Your task to perform on an android device: change notification settings in the gmail app Image 0: 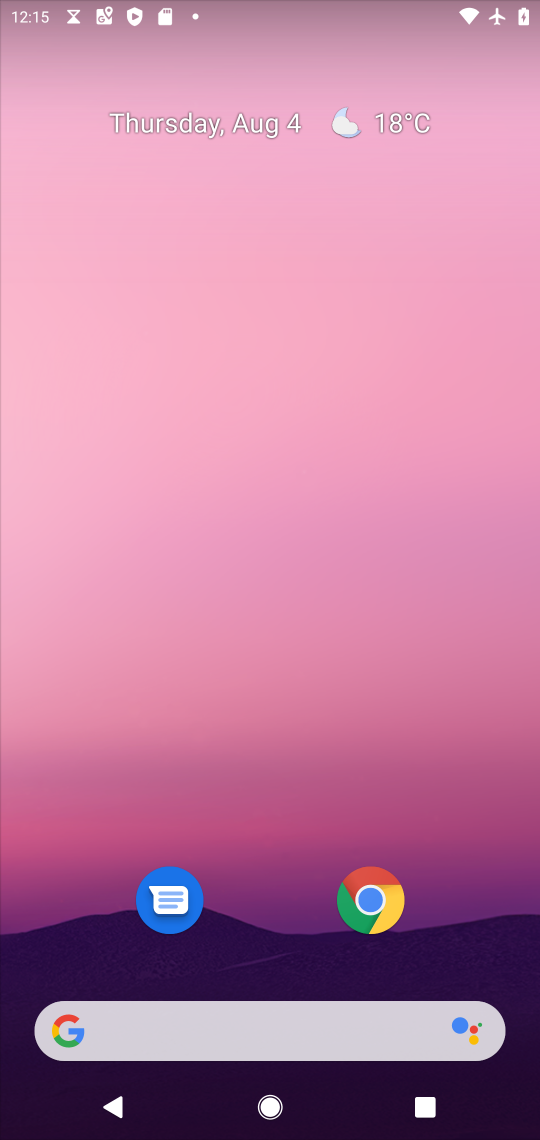
Step 0: press home button
Your task to perform on an android device: change notification settings in the gmail app Image 1: 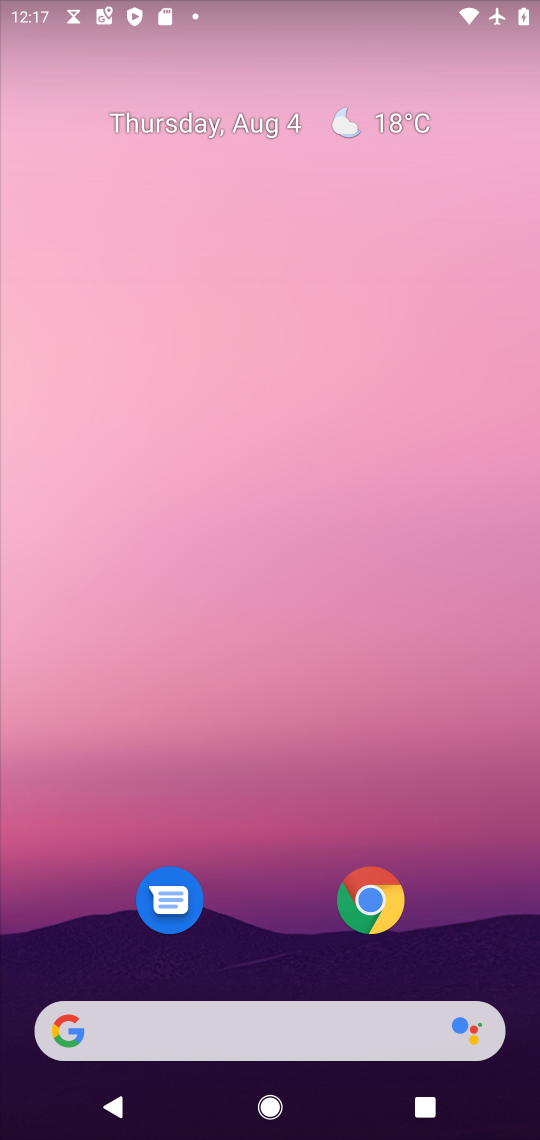
Step 1: drag from (261, 755) to (320, 98)
Your task to perform on an android device: change notification settings in the gmail app Image 2: 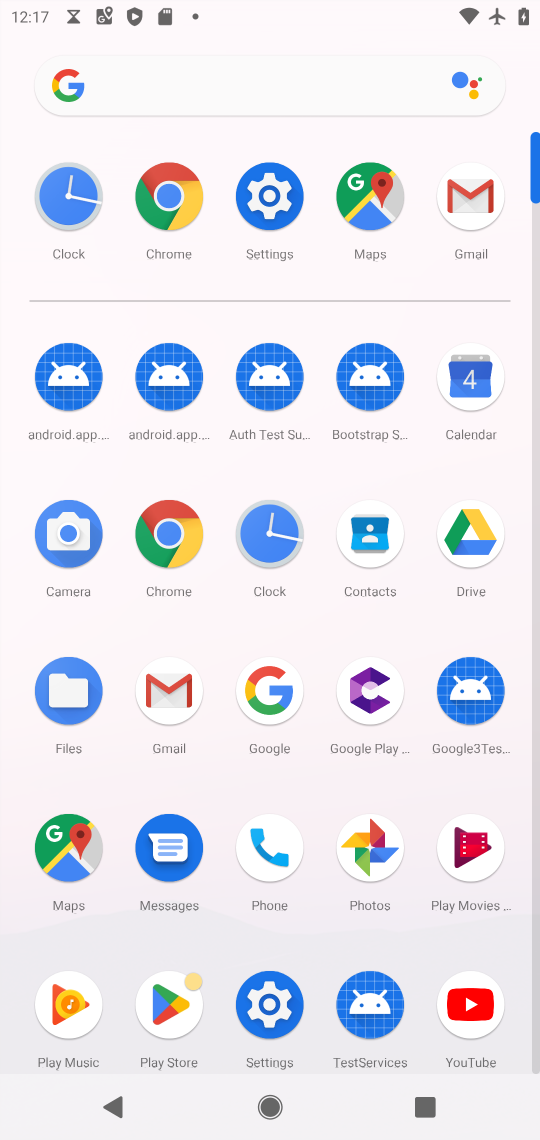
Step 2: click (480, 205)
Your task to perform on an android device: change notification settings in the gmail app Image 3: 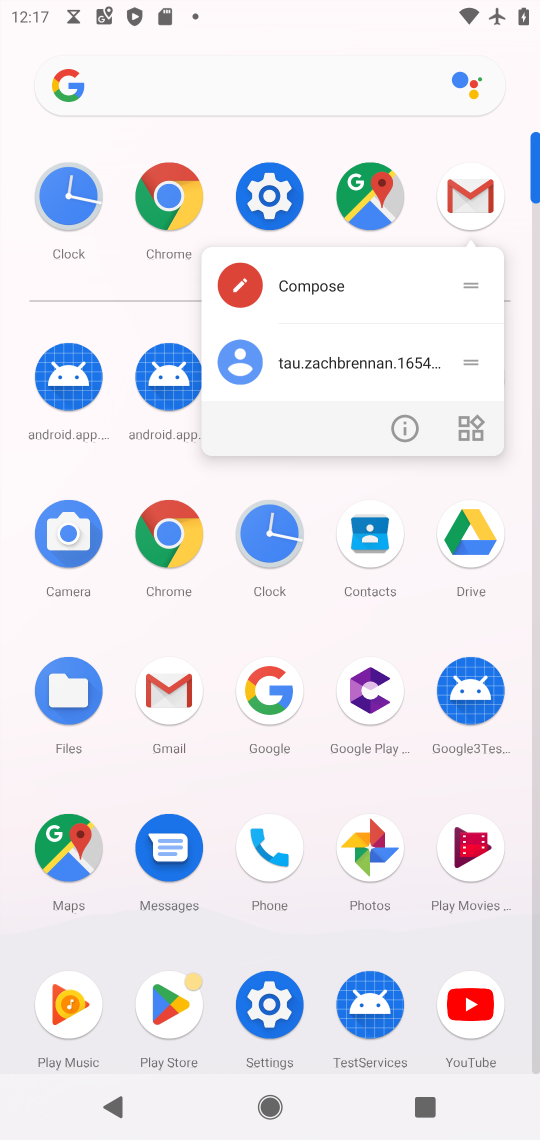
Step 3: click (480, 205)
Your task to perform on an android device: change notification settings in the gmail app Image 4: 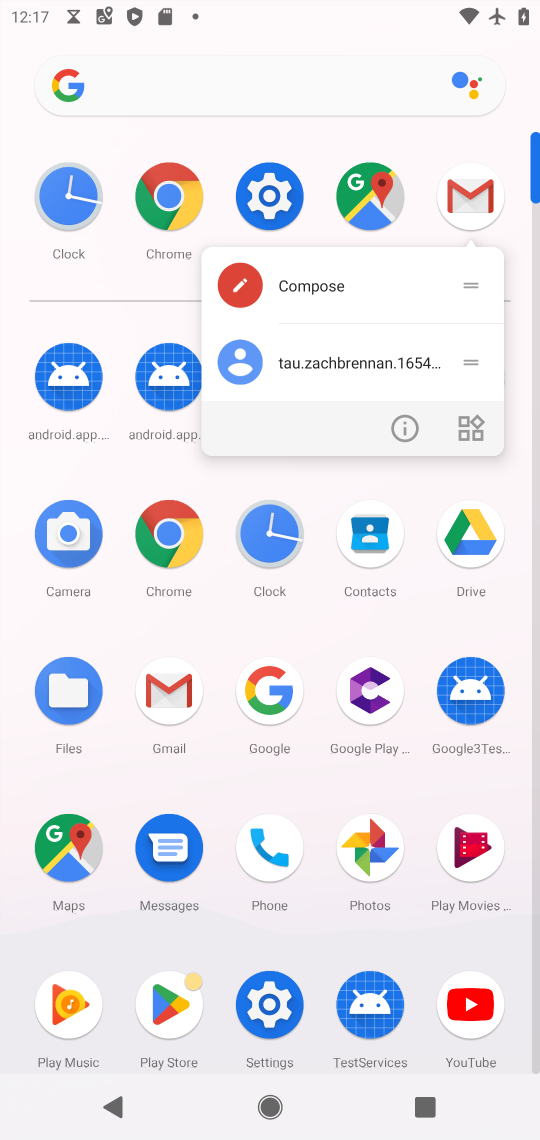
Step 4: click (480, 205)
Your task to perform on an android device: change notification settings in the gmail app Image 5: 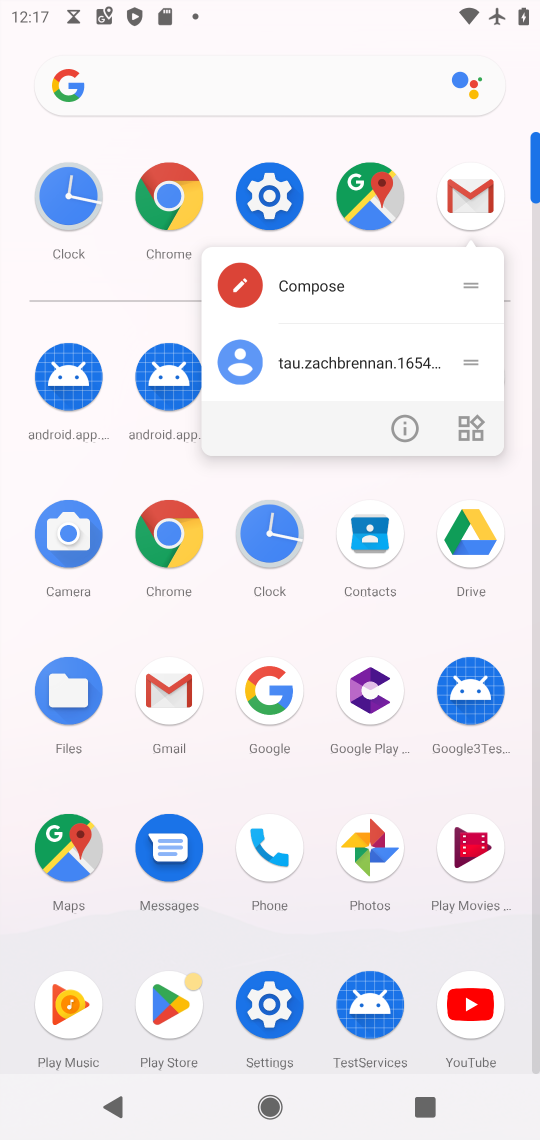
Step 5: click (471, 197)
Your task to perform on an android device: change notification settings in the gmail app Image 6: 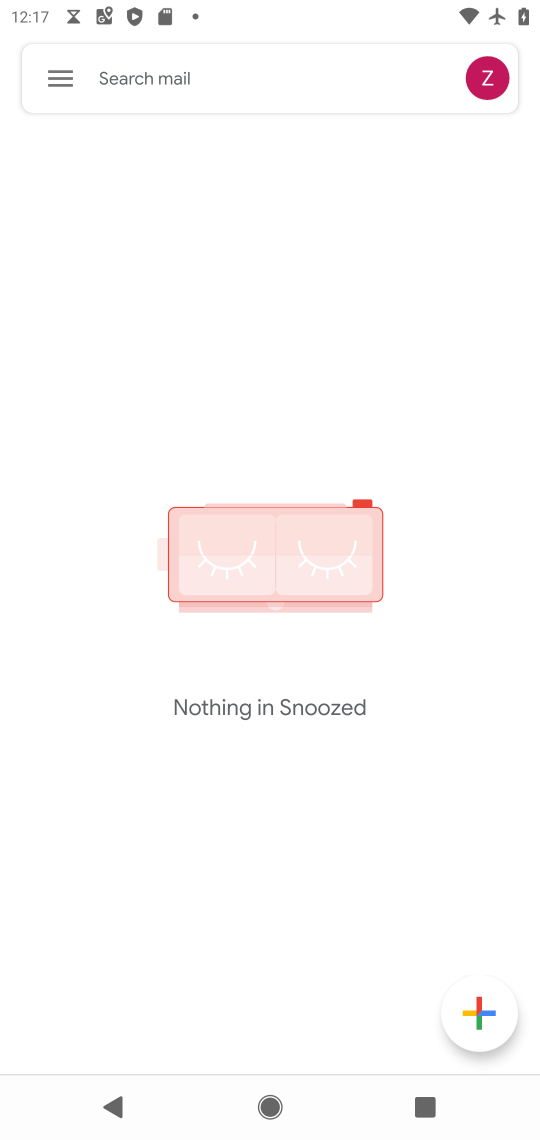
Step 6: click (67, 74)
Your task to perform on an android device: change notification settings in the gmail app Image 7: 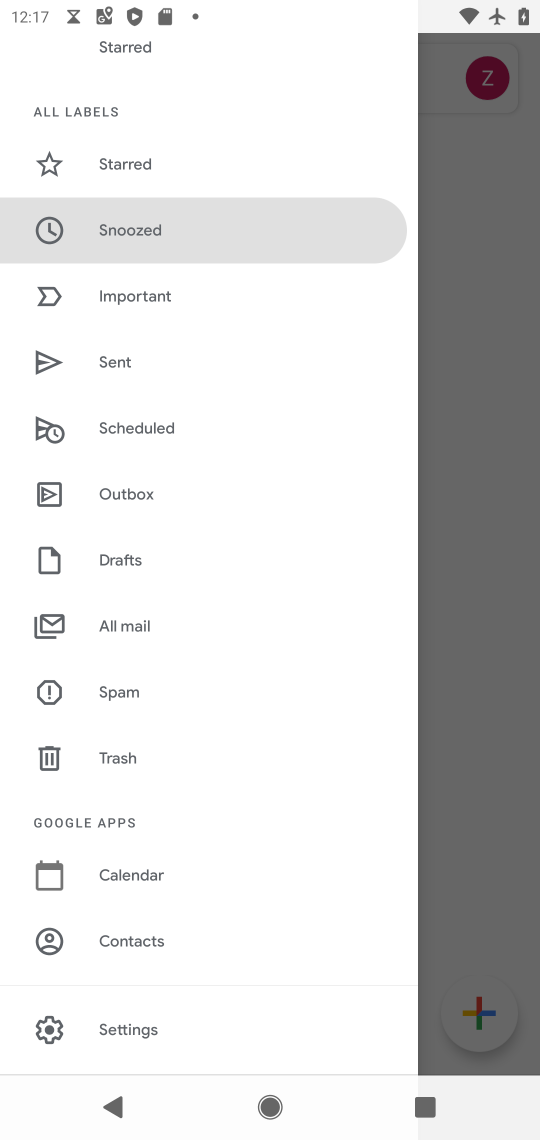
Step 7: click (123, 1032)
Your task to perform on an android device: change notification settings in the gmail app Image 8: 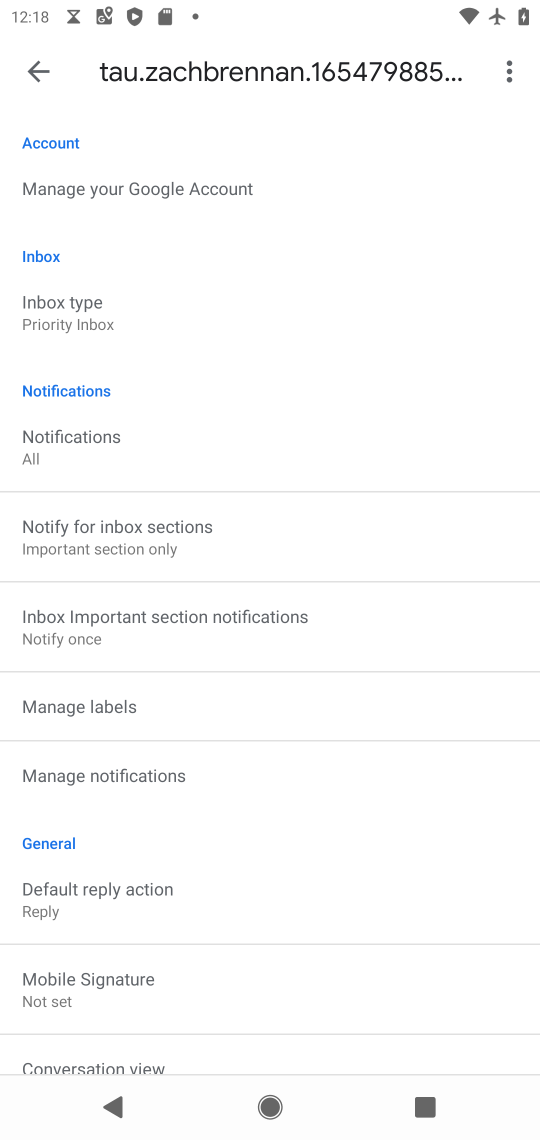
Step 8: click (97, 779)
Your task to perform on an android device: change notification settings in the gmail app Image 9: 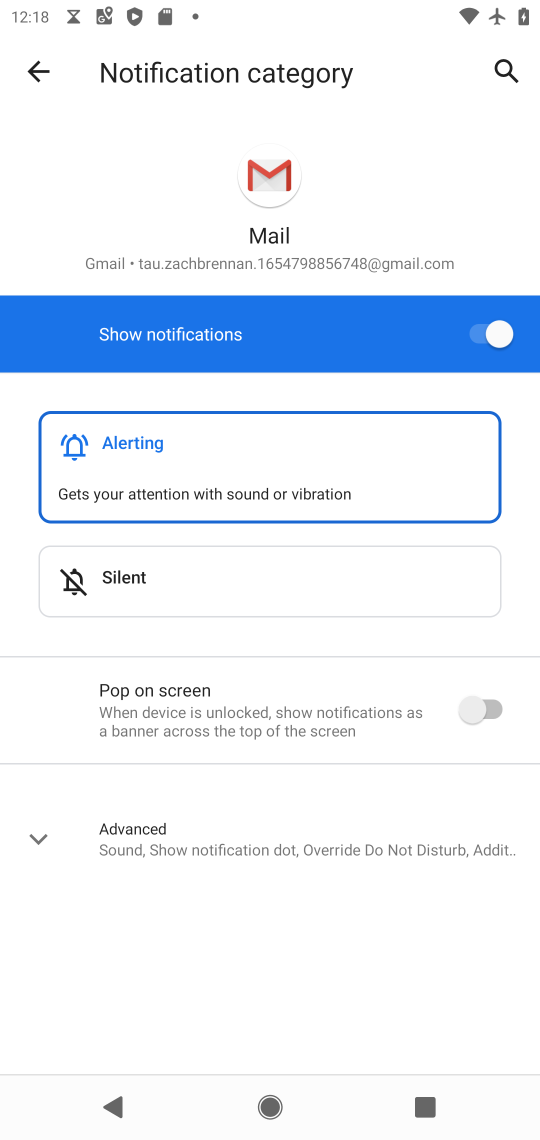
Step 9: click (504, 332)
Your task to perform on an android device: change notification settings in the gmail app Image 10: 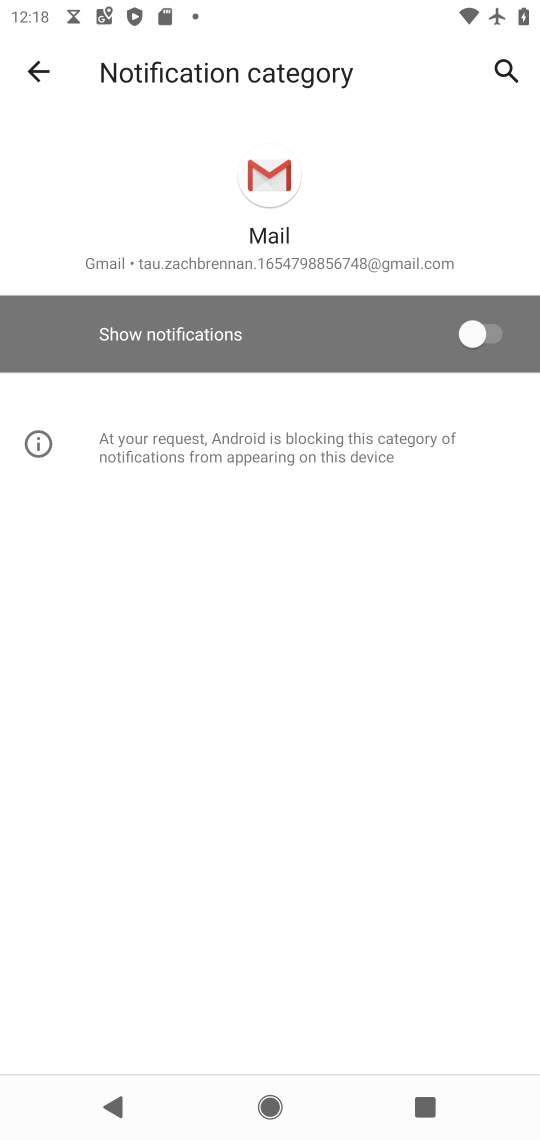
Step 10: task complete